Your task to perform on an android device: Open display settings Image 0: 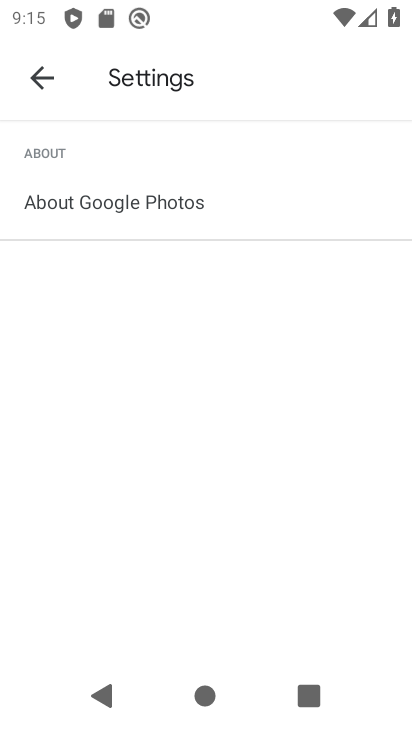
Step 0: press home button
Your task to perform on an android device: Open display settings Image 1: 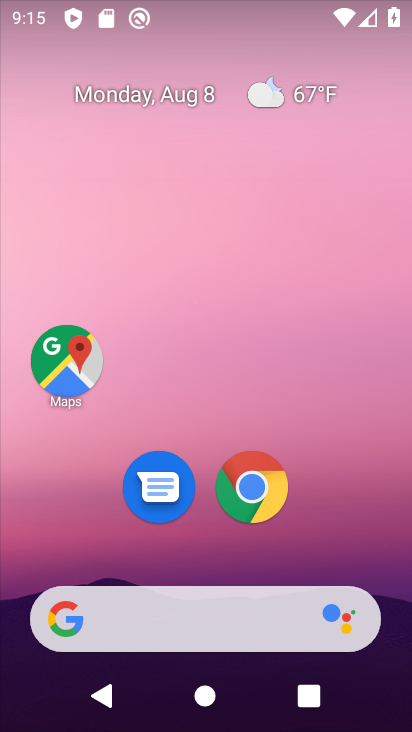
Step 1: drag from (207, 577) to (207, 69)
Your task to perform on an android device: Open display settings Image 2: 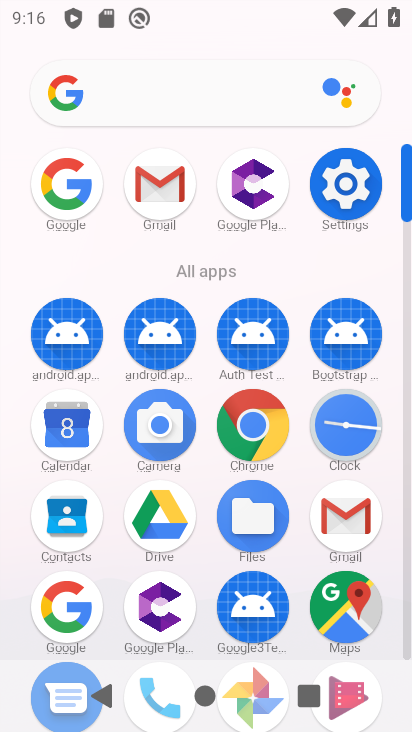
Step 2: click (344, 177)
Your task to perform on an android device: Open display settings Image 3: 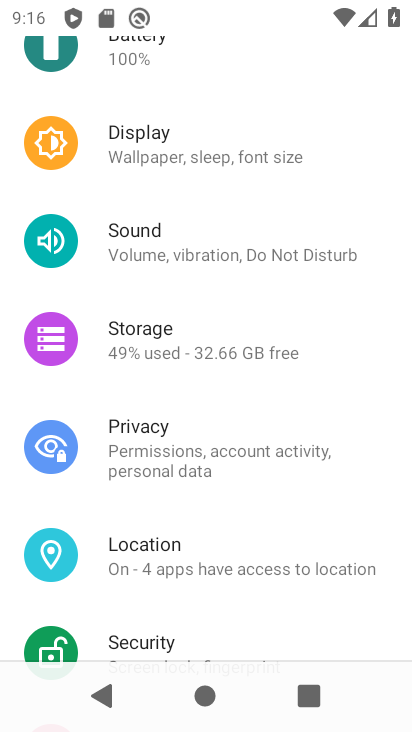
Step 3: click (134, 146)
Your task to perform on an android device: Open display settings Image 4: 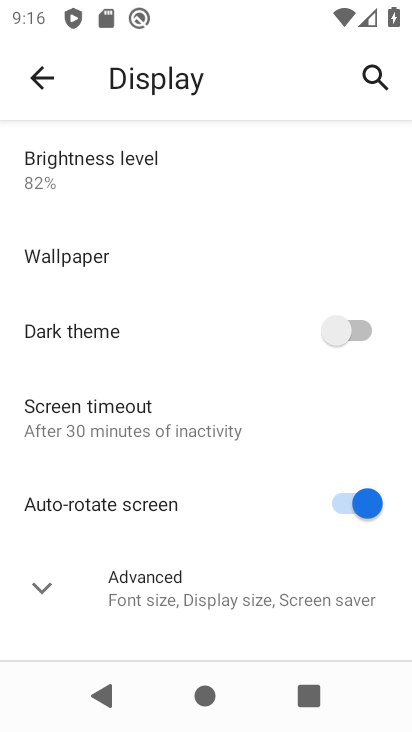
Step 4: task complete